Your task to perform on an android device: open a new tab in the chrome app Image 0: 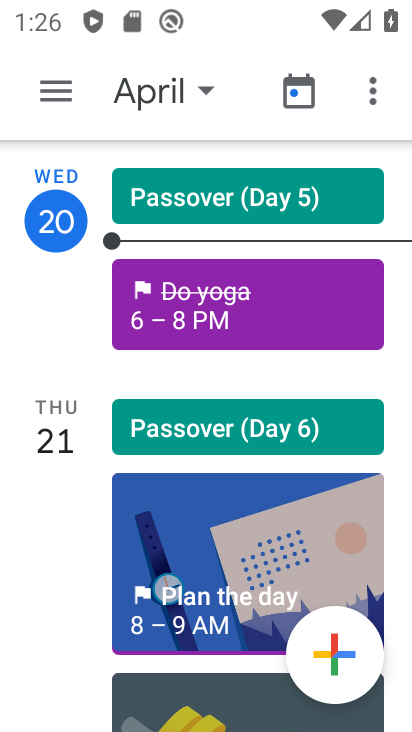
Step 0: press home button
Your task to perform on an android device: open a new tab in the chrome app Image 1: 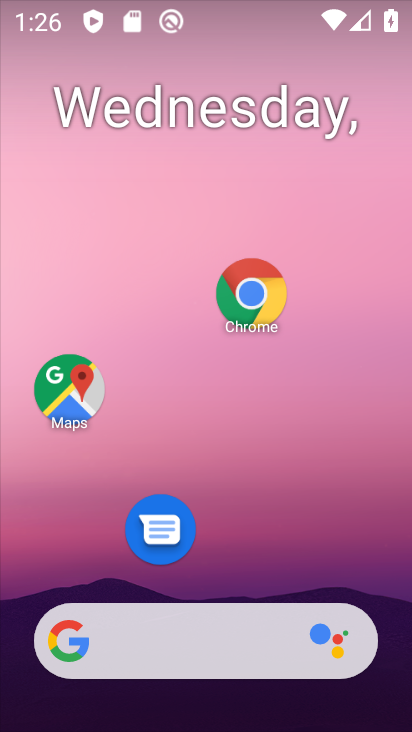
Step 1: click (275, 306)
Your task to perform on an android device: open a new tab in the chrome app Image 2: 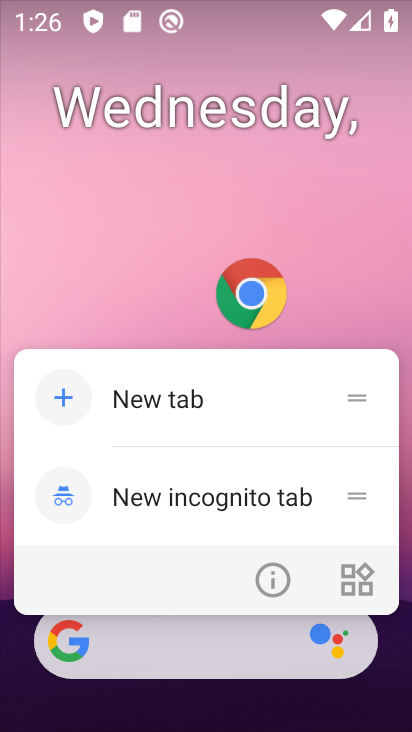
Step 2: click (252, 292)
Your task to perform on an android device: open a new tab in the chrome app Image 3: 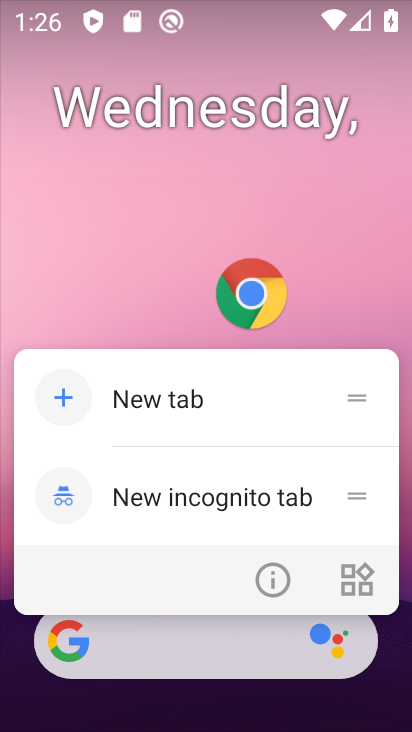
Step 3: click (269, 284)
Your task to perform on an android device: open a new tab in the chrome app Image 4: 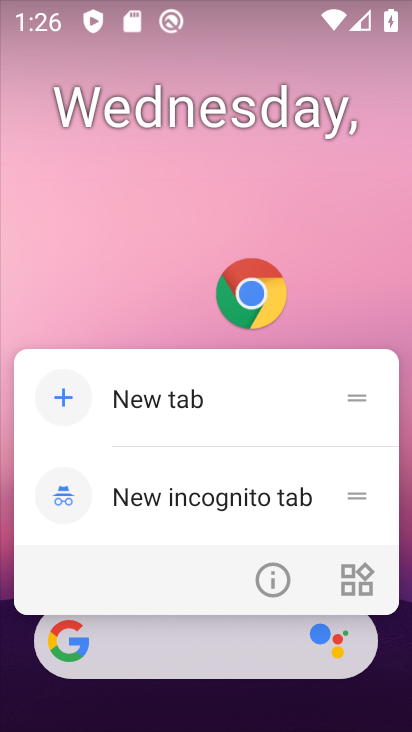
Step 4: click (334, 236)
Your task to perform on an android device: open a new tab in the chrome app Image 5: 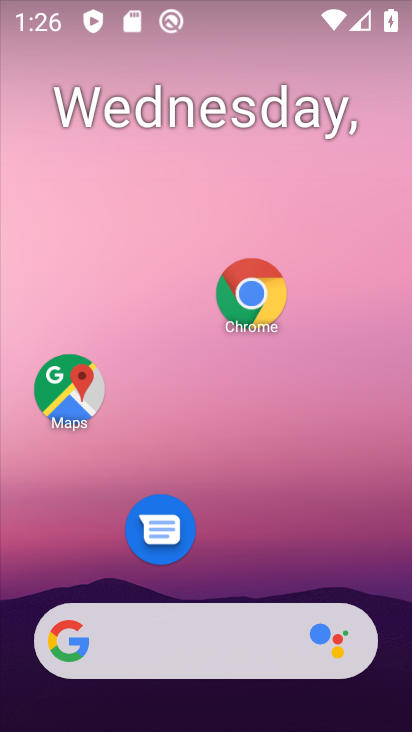
Step 5: click (285, 281)
Your task to perform on an android device: open a new tab in the chrome app Image 6: 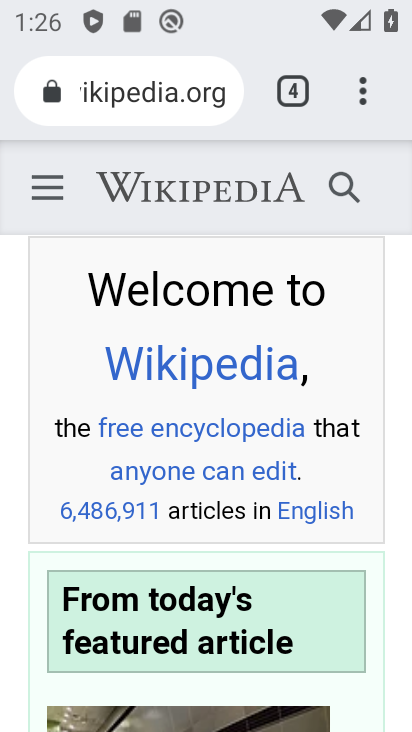
Step 6: drag from (297, 91) to (270, 306)
Your task to perform on an android device: open a new tab in the chrome app Image 7: 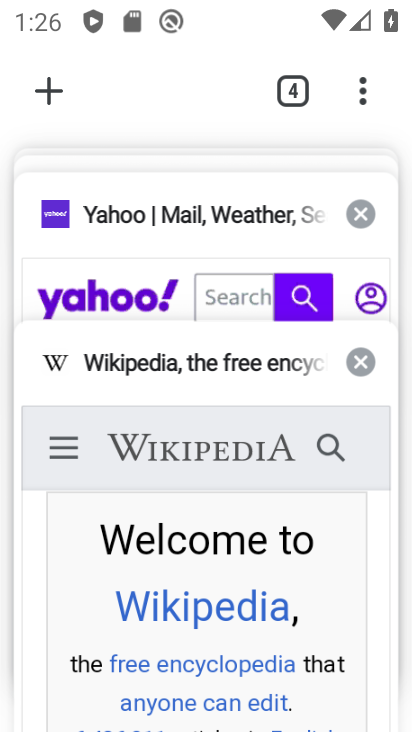
Step 7: click (50, 107)
Your task to perform on an android device: open a new tab in the chrome app Image 8: 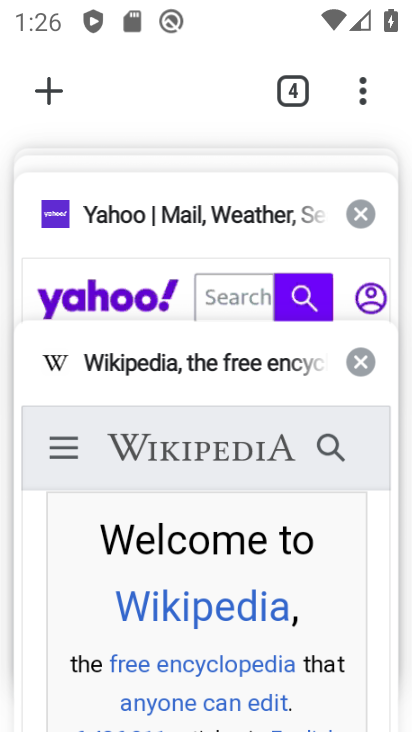
Step 8: click (48, 96)
Your task to perform on an android device: open a new tab in the chrome app Image 9: 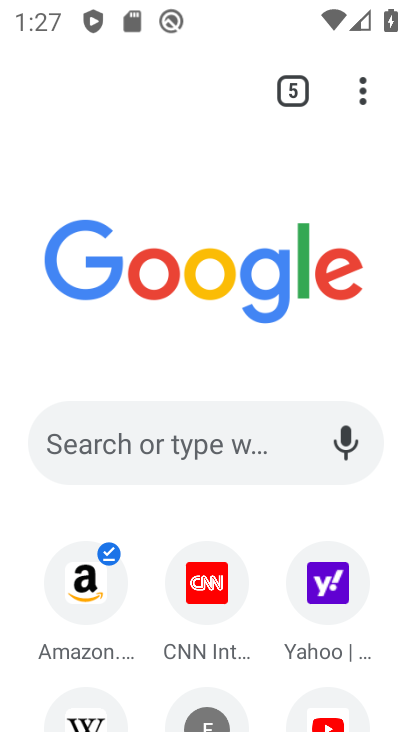
Step 9: task complete